Your task to perform on an android device: turn on improve location accuracy Image 0: 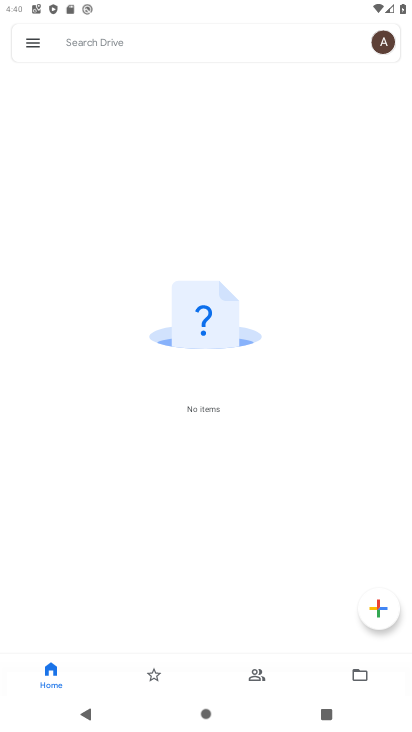
Step 0: press home button
Your task to perform on an android device: turn on improve location accuracy Image 1: 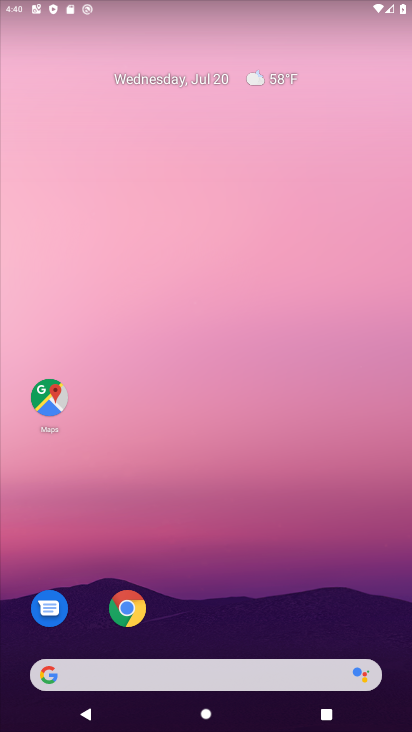
Step 1: drag from (227, 646) to (112, 56)
Your task to perform on an android device: turn on improve location accuracy Image 2: 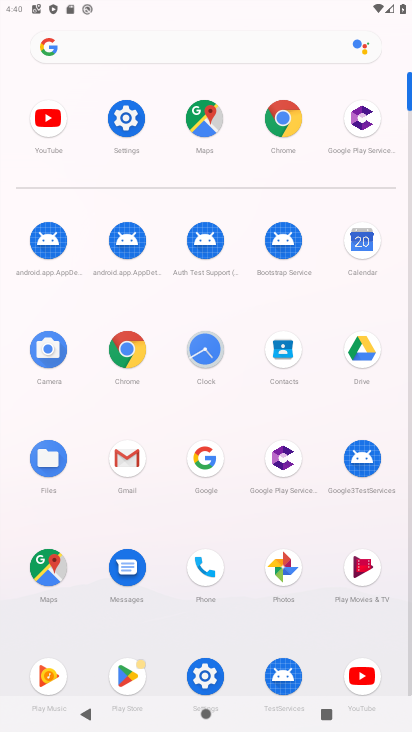
Step 2: click (138, 107)
Your task to perform on an android device: turn on improve location accuracy Image 3: 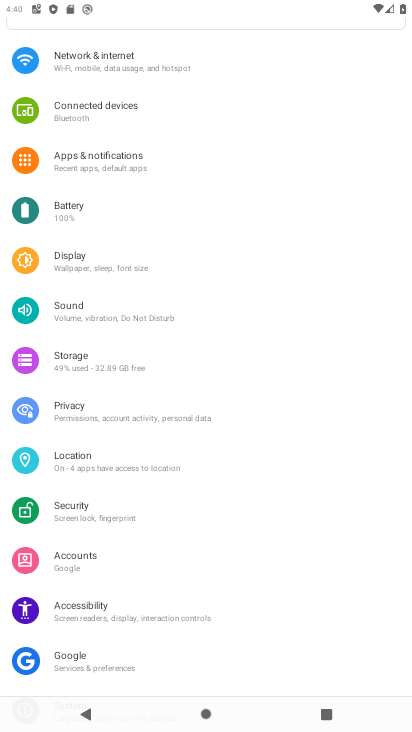
Step 3: click (81, 464)
Your task to perform on an android device: turn on improve location accuracy Image 4: 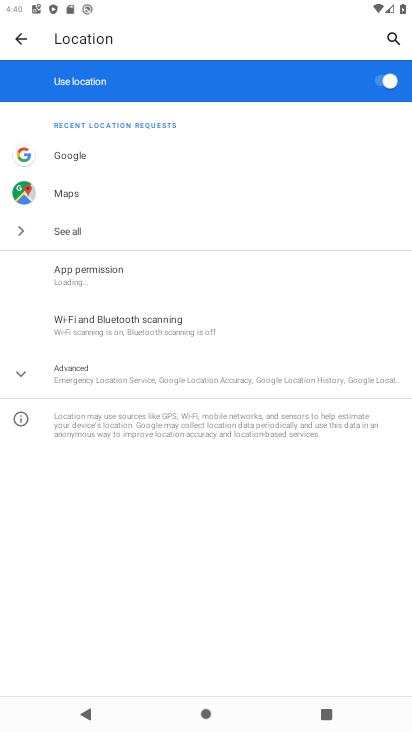
Step 4: click (72, 360)
Your task to perform on an android device: turn on improve location accuracy Image 5: 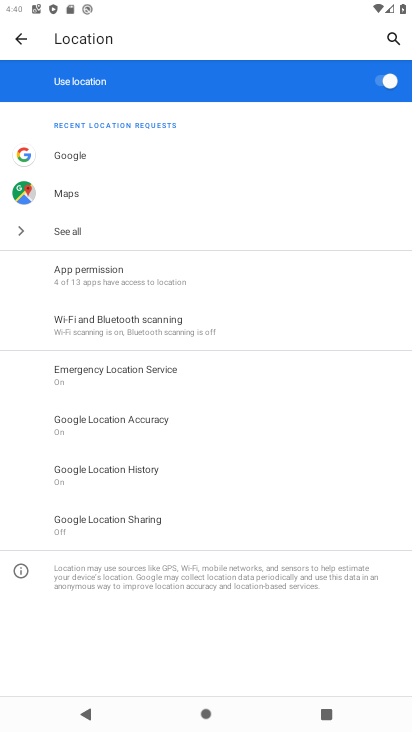
Step 5: click (137, 415)
Your task to perform on an android device: turn on improve location accuracy Image 6: 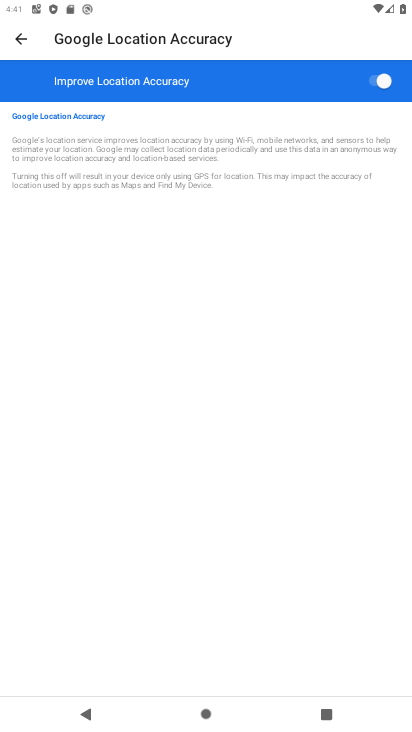
Step 6: task complete